Your task to perform on an android device: Open notification settings Image 0: 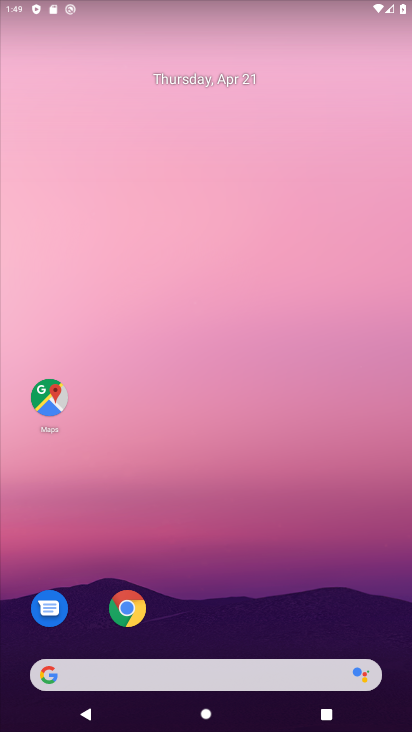
Step 0: drag from (184, 433) to (182, 213)
Your task to perform on an android device: Open notification settings Image 1: 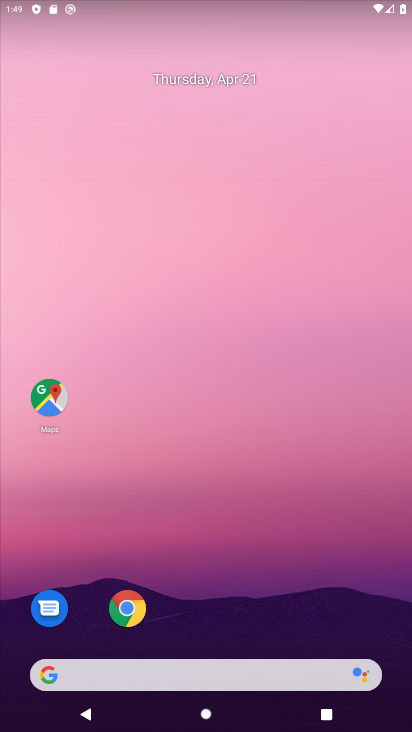
Step 1: drag from (205, 573) to (200, 130)
Your task to perform on an android device: Open notification settings Image 2: 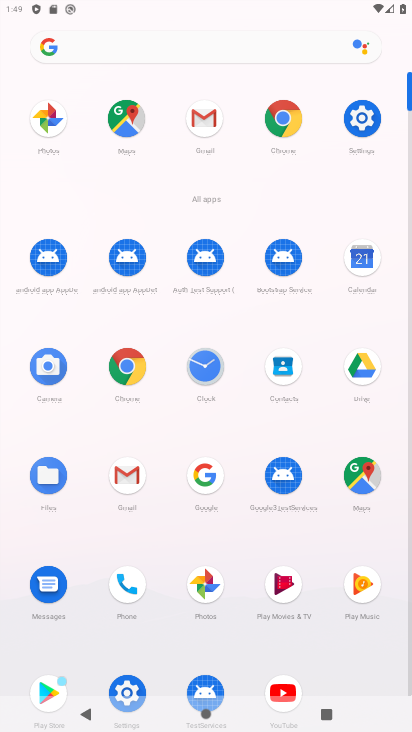
Step 2: click (347, 119)
Your task to perform on an android device: Open notification settings Image 3: 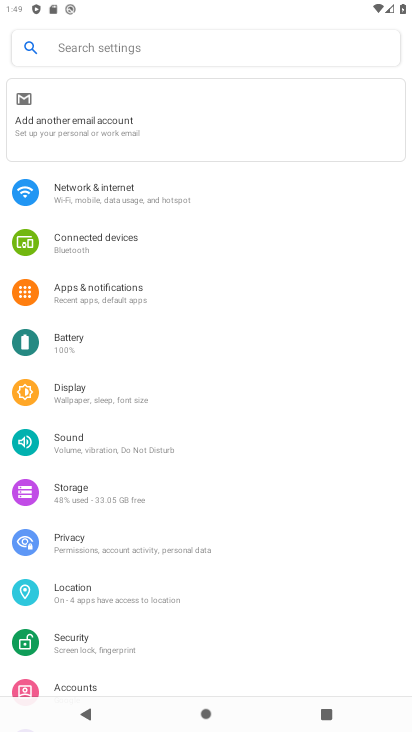
Step 3: click (132, 305)
Your task to perform on an android device: Open notification settings Image 4: 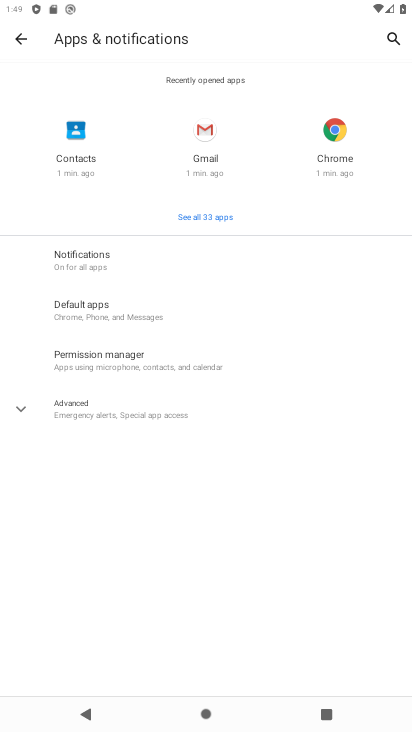
Step 4: click (131, 266)
Your task to perform on an android device: Open notification settings Image 5: 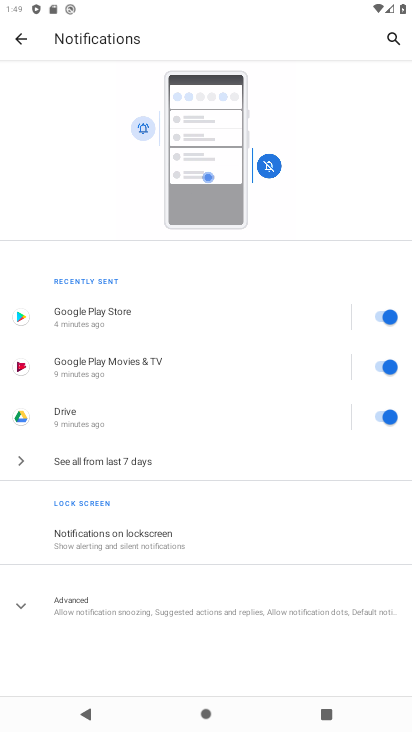
Step 5: task complete